Your task to perform on an android device: Turn on the flashlight Image 0: 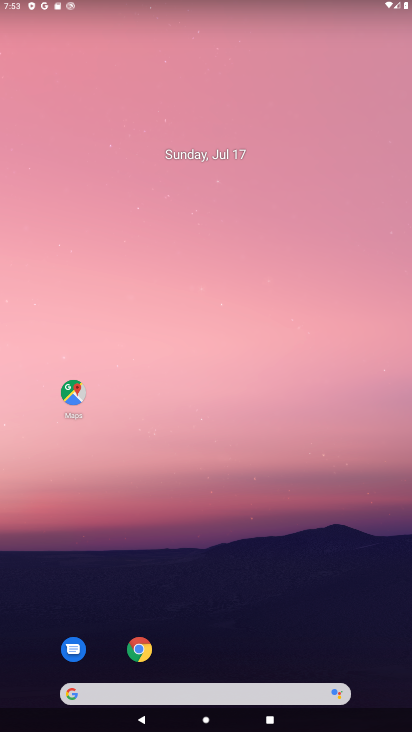
Step 0: drag from (194, 655) to (160, 96)
Your task to perform on an android device: Turn on the flashlight Image 1: 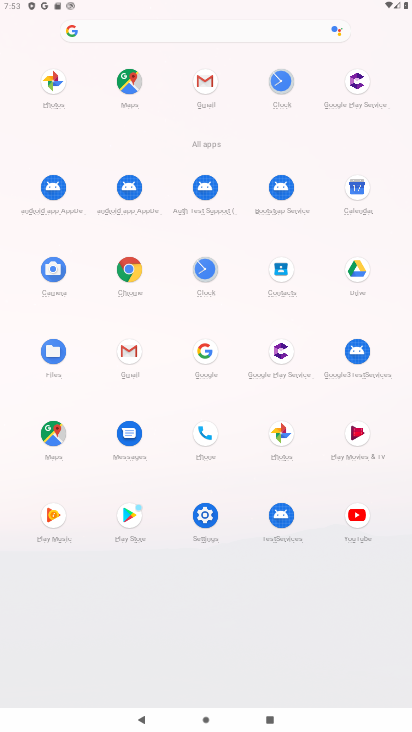
Step 1: click (211, 510)
Your task to perform on an android device: Turn on the flashlight Image 2: 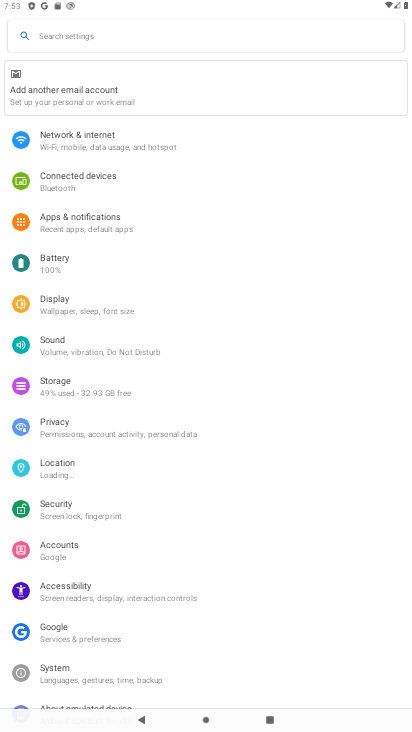
Step 2: task complete